Your task to perform on an android device: turn off airplane mode Image 0: 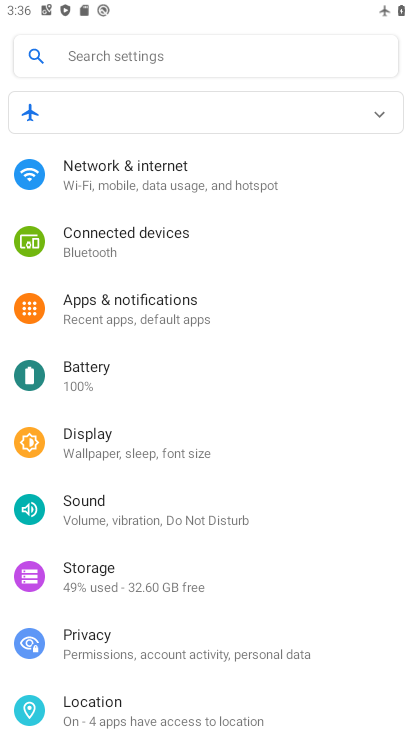
Step 0: click (169, 178)
Your task to perform on an android device: turn off airplane mode Image 1: 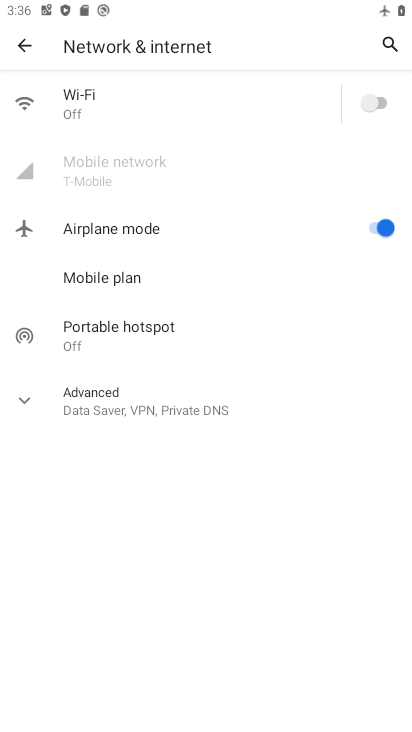
Step 1: click (381, 229)
Your task to perform on an android device: turn off airplane mode Image 2: 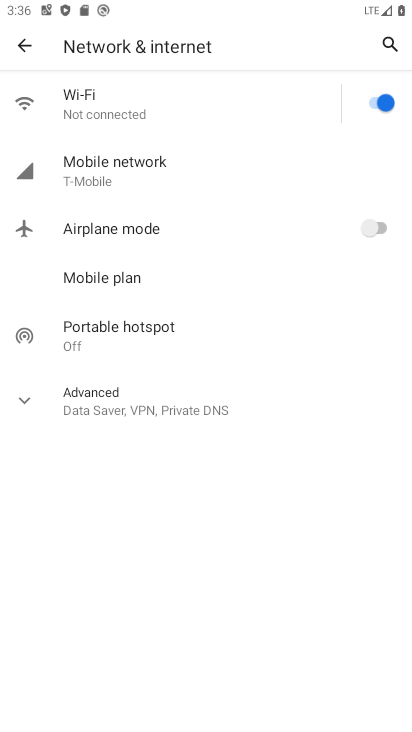
Step 2: task complete